Your task to perform on an android device: turn on wifi Image 0: 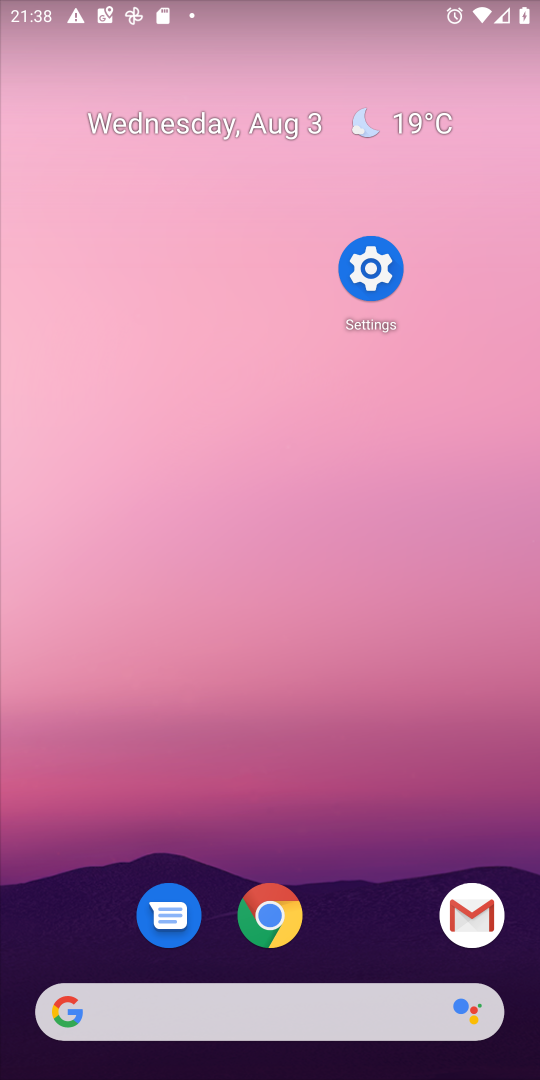
Step 0: press home button
Your task to perform on an android device: turn on wifi Image 1: 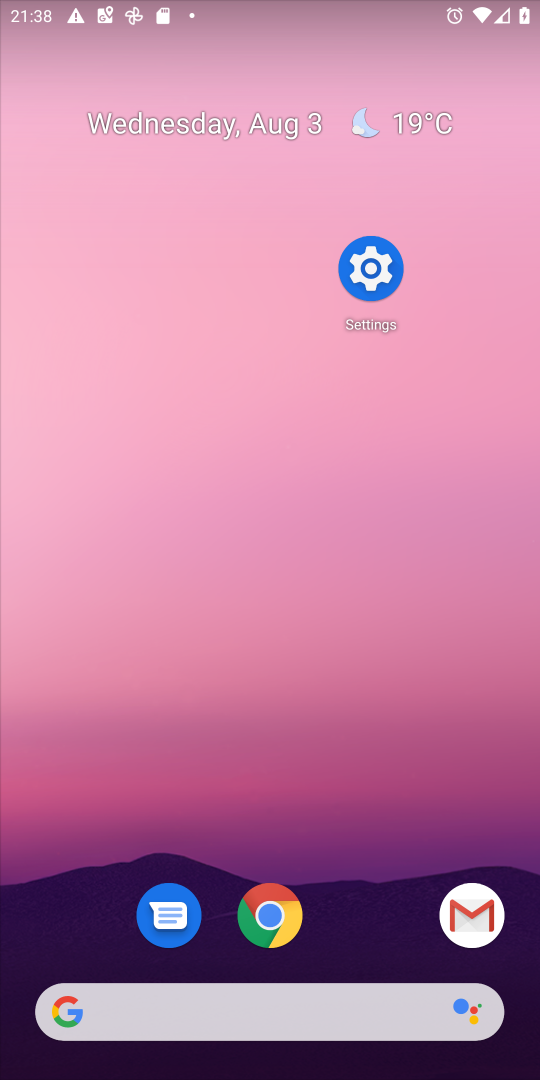
Step 1: drag from (384, 1051) to (218, 398)
Your task to perform on an android device: turn on wifi Image 2: 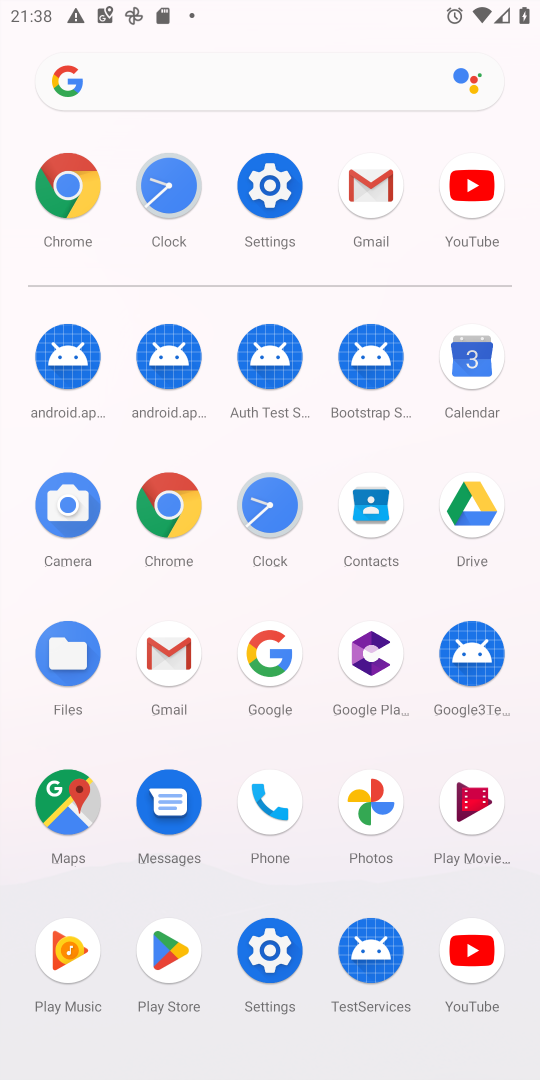
Step 2: click (264, 957)
Your task to perform on an android device: turn on wifi Image 3: 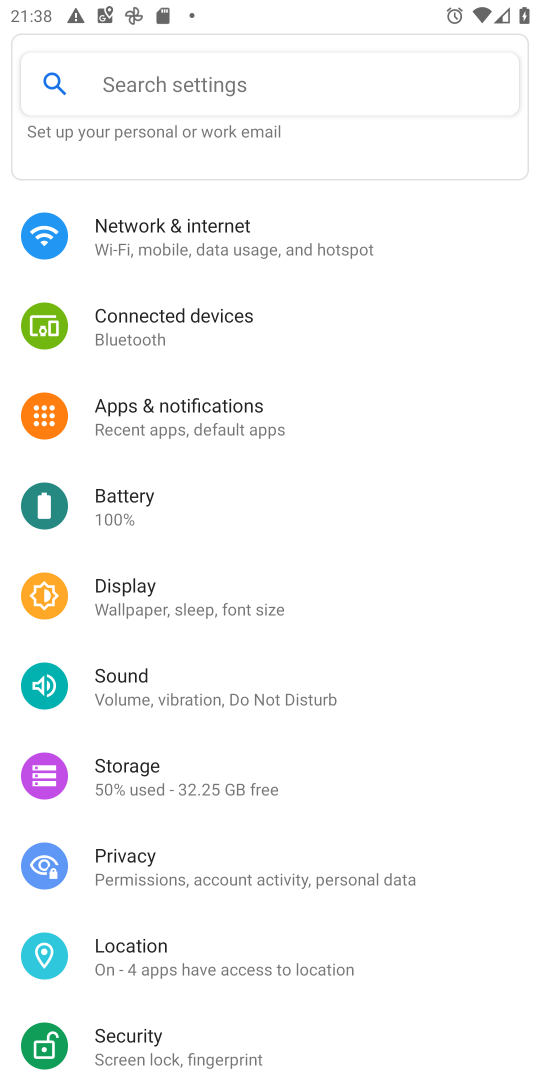
Step 3: click (216, 252)
Your task to perform on an android device: turn on wifi Image 4: 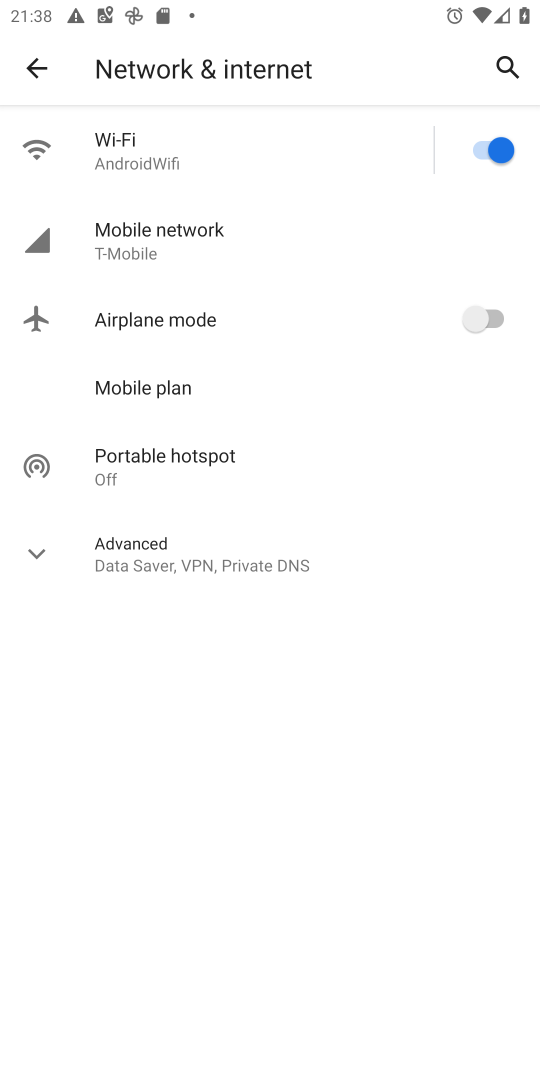
Step 4: click (195, 156)
Your task to perform on an android device: turn on wifi Image 5: 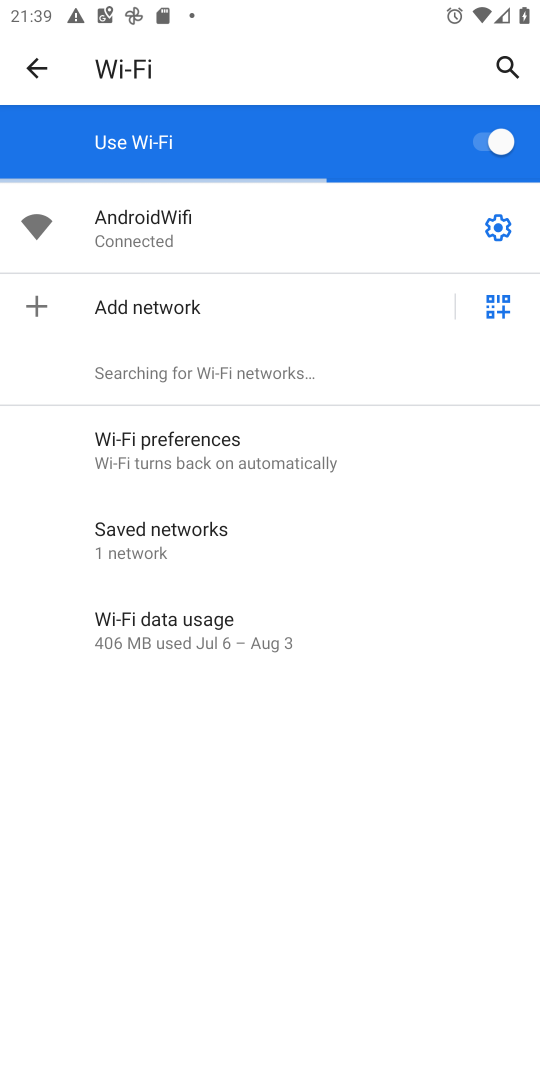
Step 5: task complete